Your task to perform on an android device: Open Youtube and go to "Your channel" Image 0: 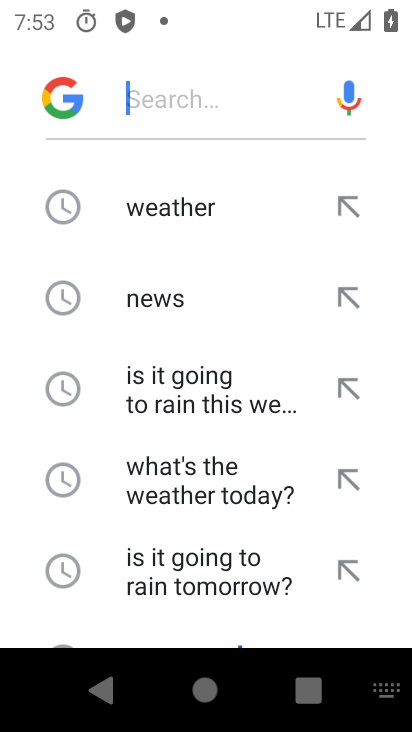
Step 0: press home button
Your task to perform on an android device: Open Youtube and go to "Your channel" Image 1: 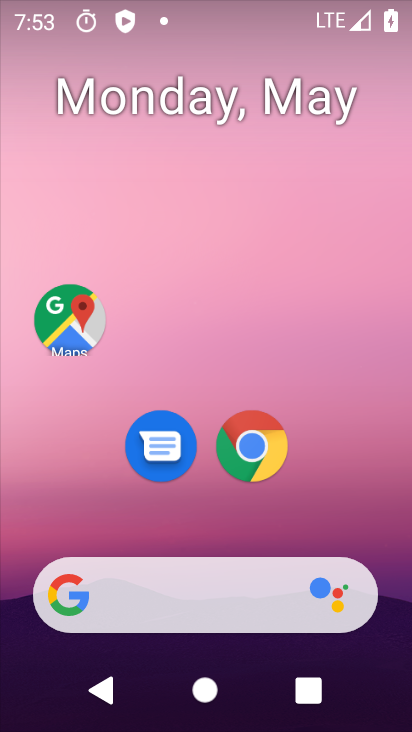
Step 1: drag from (378, 545) to (386, 10)
Your task to perform on an android device: Open Youtube and go to "Your channel" Image 2: 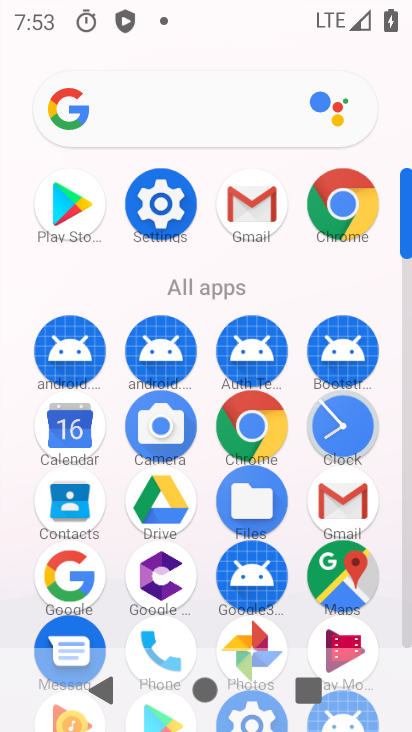
Step 2: drag from (409, 566) to (400, 513)
Your task to perform on an android device: Open Youtube and go to "Your channel" Image 3: 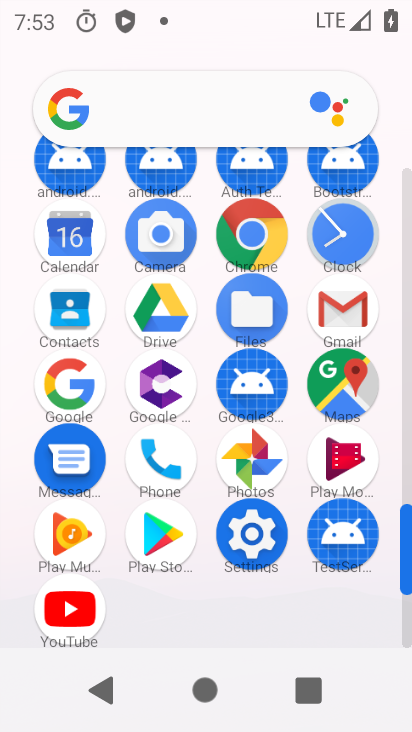
Step 3: click (84, 612)
Your task to perform on an android device: Open Youtube and go to "Your channel" Image 4: 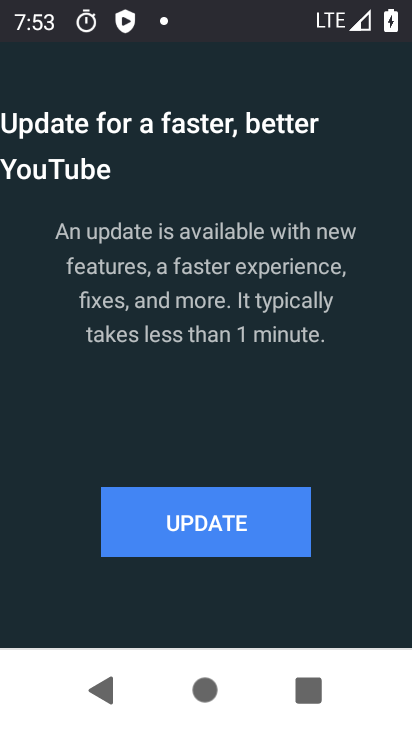
Step 4: click (209, 529)
Your task to perform on an android device: Open Youtube and go to "Your channel" Image 5: 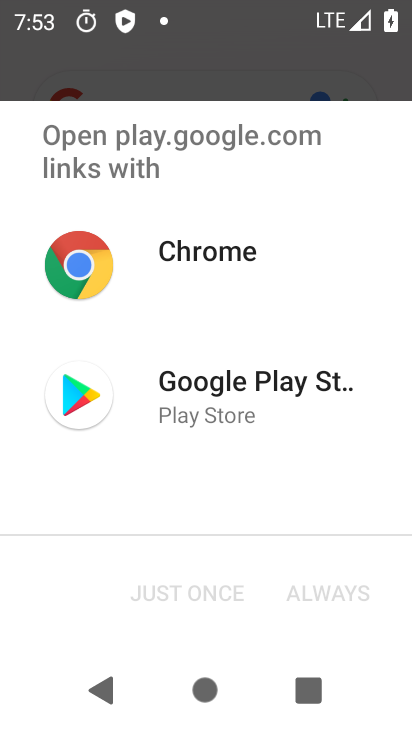
Step 5: click (187, 391)
Your task to perform on an android device: Open Youtube and go to "Your channel" Image 6: 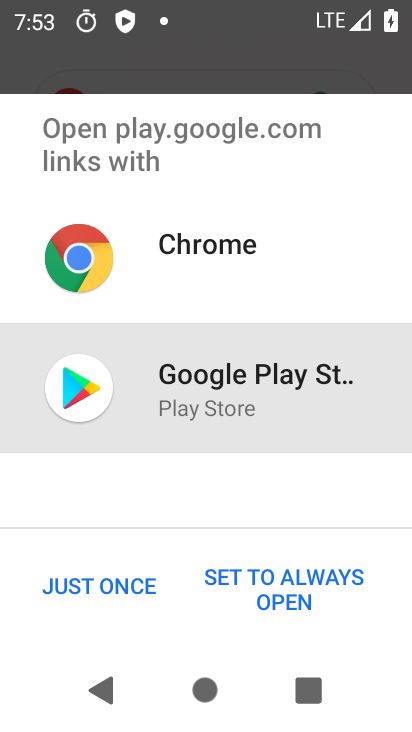
Step 6: click (125, 579)
Your task to perform on an android device: Open Youtube and go to "Your channel" Image 7: 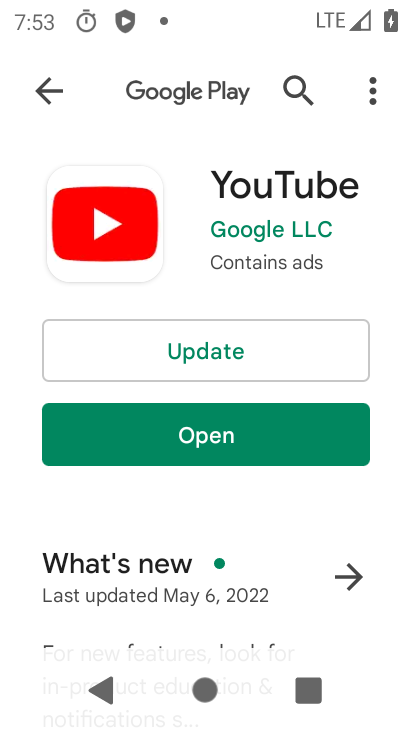
Step 7: click (213, 357)
Your task to perform on an android device: Open Youtube and go to "Your channel" Image 8: 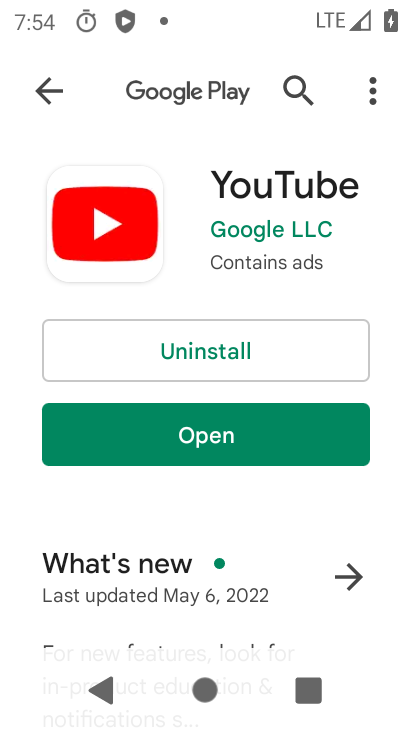
Step 8: click (195, 435)
Your task to perform on an android device: Open Youtube and go to "Your channel" Image 9: 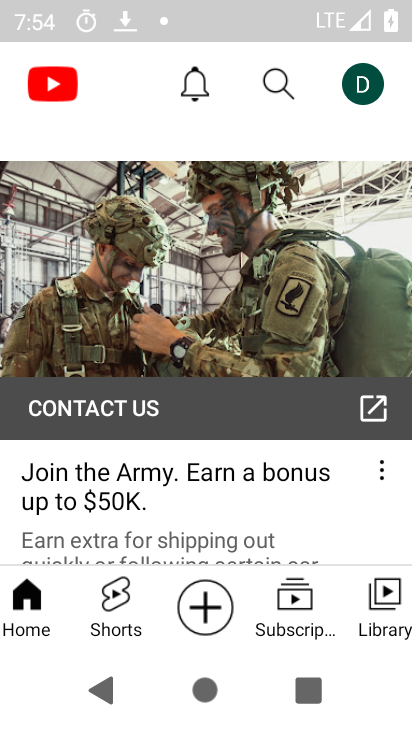
Step 9: click (362, 83)
Your task to perform on an android device: Open Youtube and go to "Your channel" Image 10: 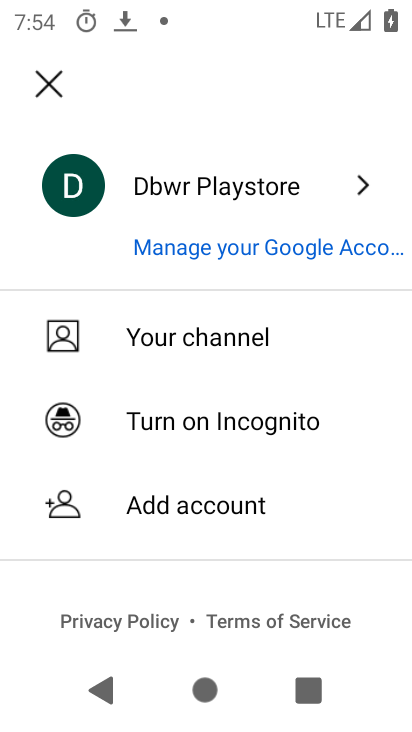
Step 10: click (204, 337)
Your task to perform on an android device: Open Youtube and go to "Your channel" Image 11: 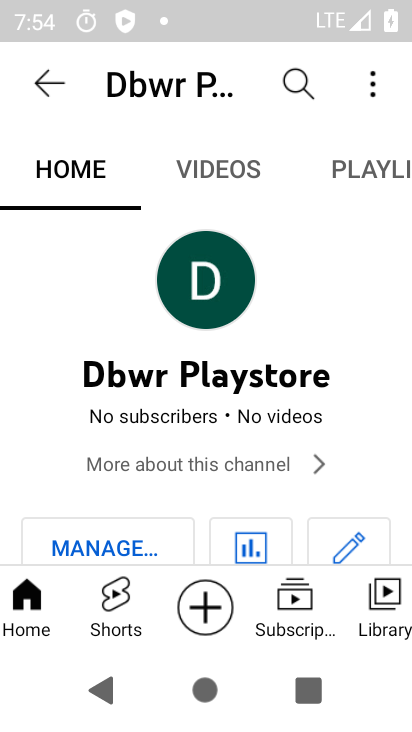
Step 11: task complete